Your task to perform on an android device: open device folders in google photos Image 0: 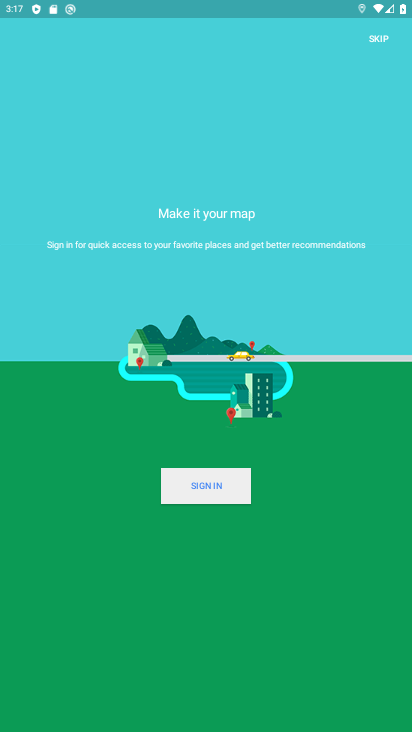
Step 0: press home button
Your task to perform on an android device: open device folders in google photos Image 1: 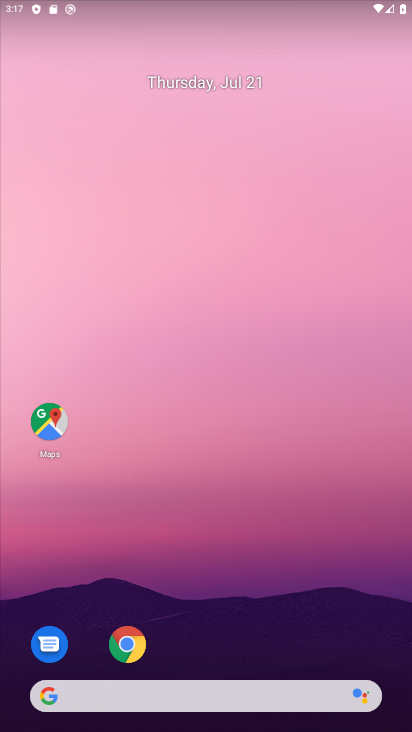
Step 1: drag from (190, 699) to (281, 296)
Your task to perform on an android device: open device folders in google photos Image 2: 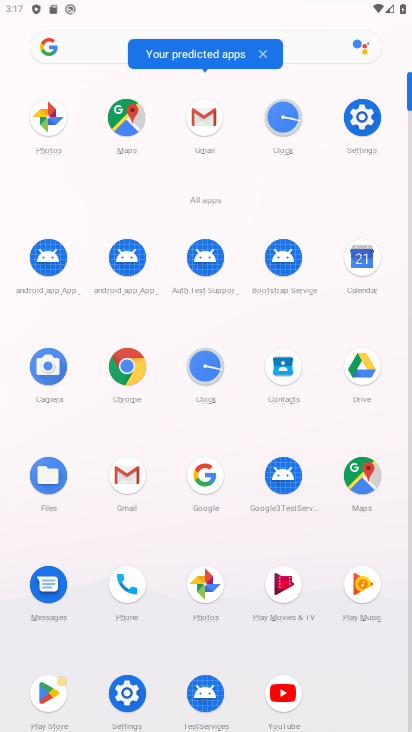
Step 2: click (205, 583)
Your task to perform on an android device: open device folders in google photos Image 3: 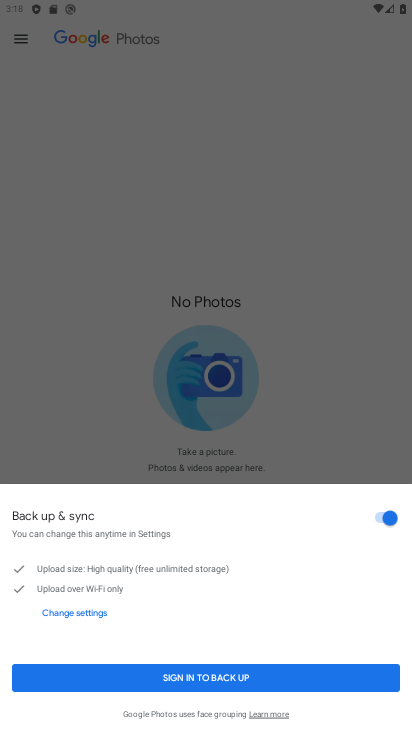
Step 3: click (210, 683)
Your task to perform on an android device: open device folders in google photos Image 4: 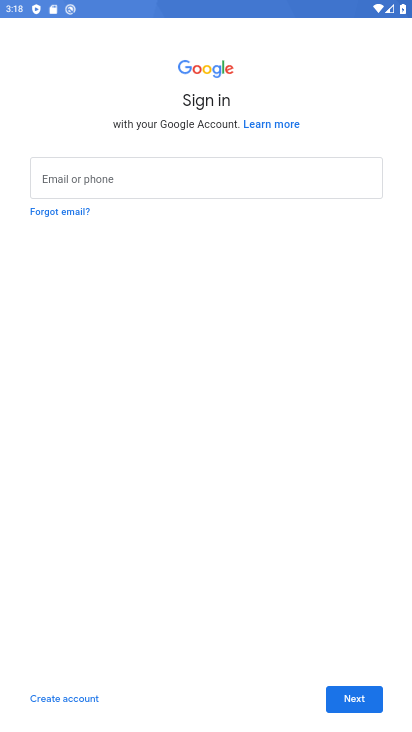
Step 4: task complete